Your task to perform on an android device: check out phone information Image 0: 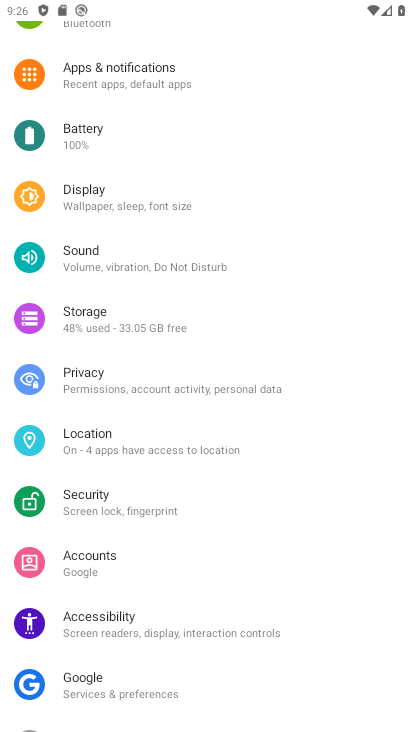
Step 0: press home button
Your task to perform on an android device: check out phone information Image 1: 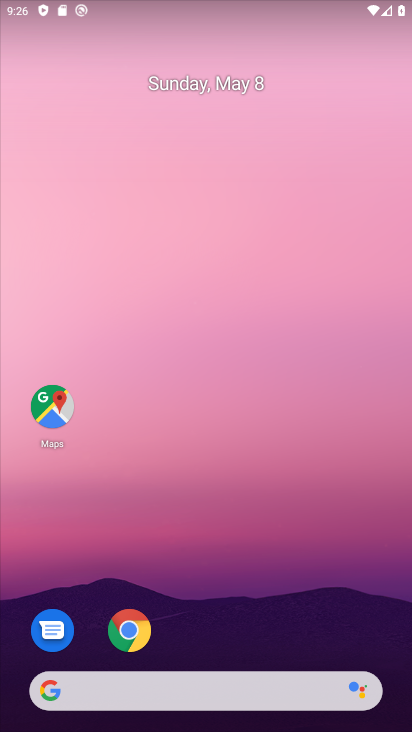
Step 1: drag from (211, 492) to (213, 179)
Your task to perform on an android device: check out phone information Image 2: 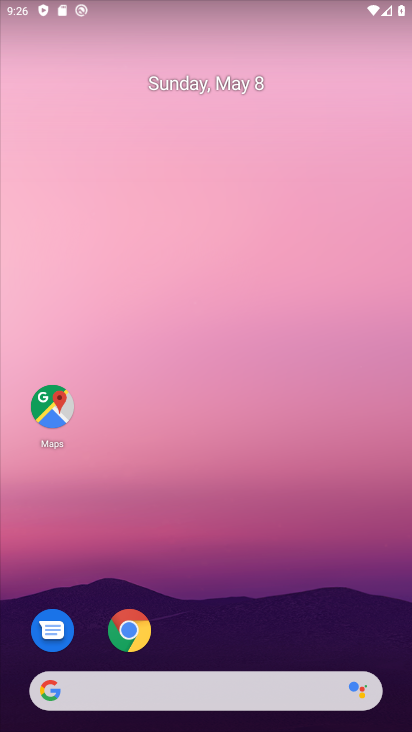
Step 2: drag from (326, 554) to (199, 9)
Your task to perform on an android device: check out phone information Image 3: 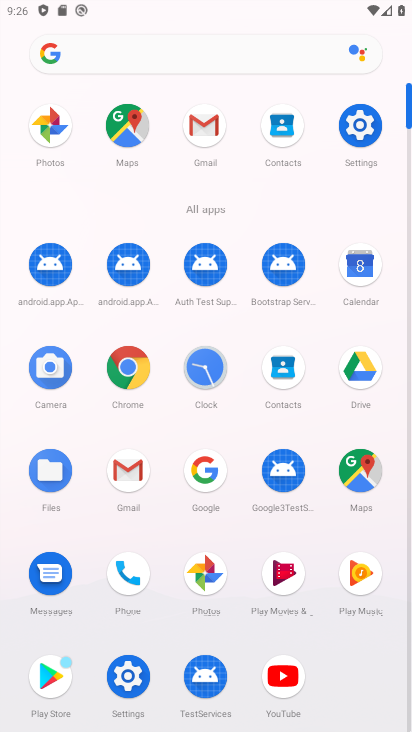
Step 3: click (125, 570)
Your task to perform on an android device: check out phone information Image 4: 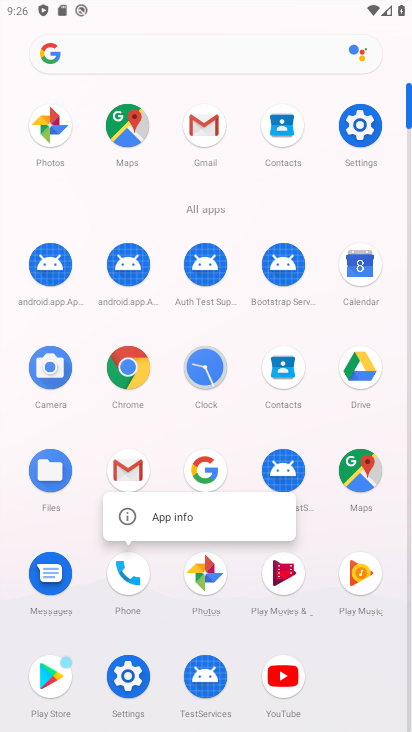
Step 4: click (168, 522)
Your task to perform on an android device: check out phone information Image 5: 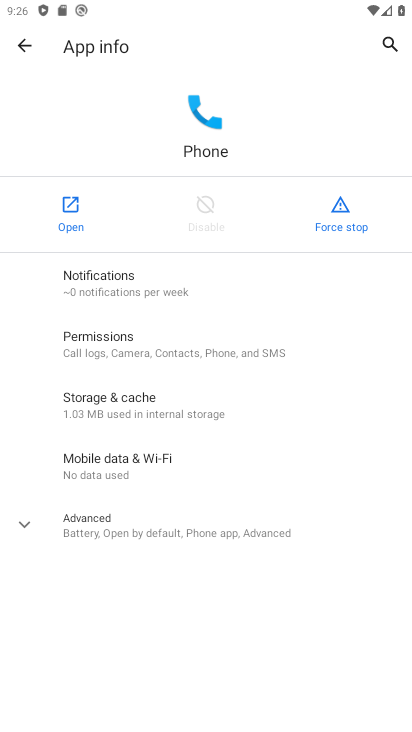
Step 5: task complete